Your task to perform on an android device: uninstall "Pluto TV - Live TV and Movies" Image 0: 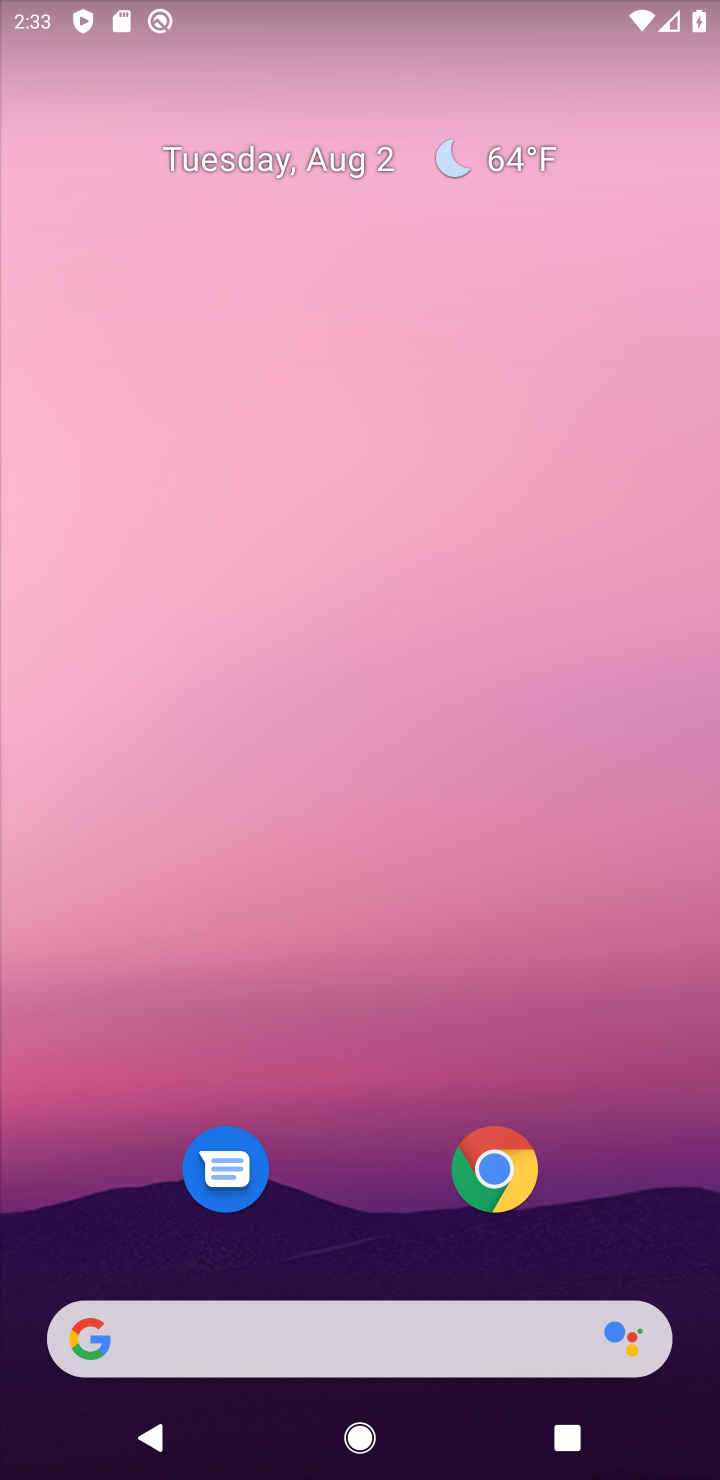
Step 0: drag from (605, 1138) to (458, 41)
Your task to perform on an android device: uninstall "Pluto TV - Live TV and Movies" Image 1: 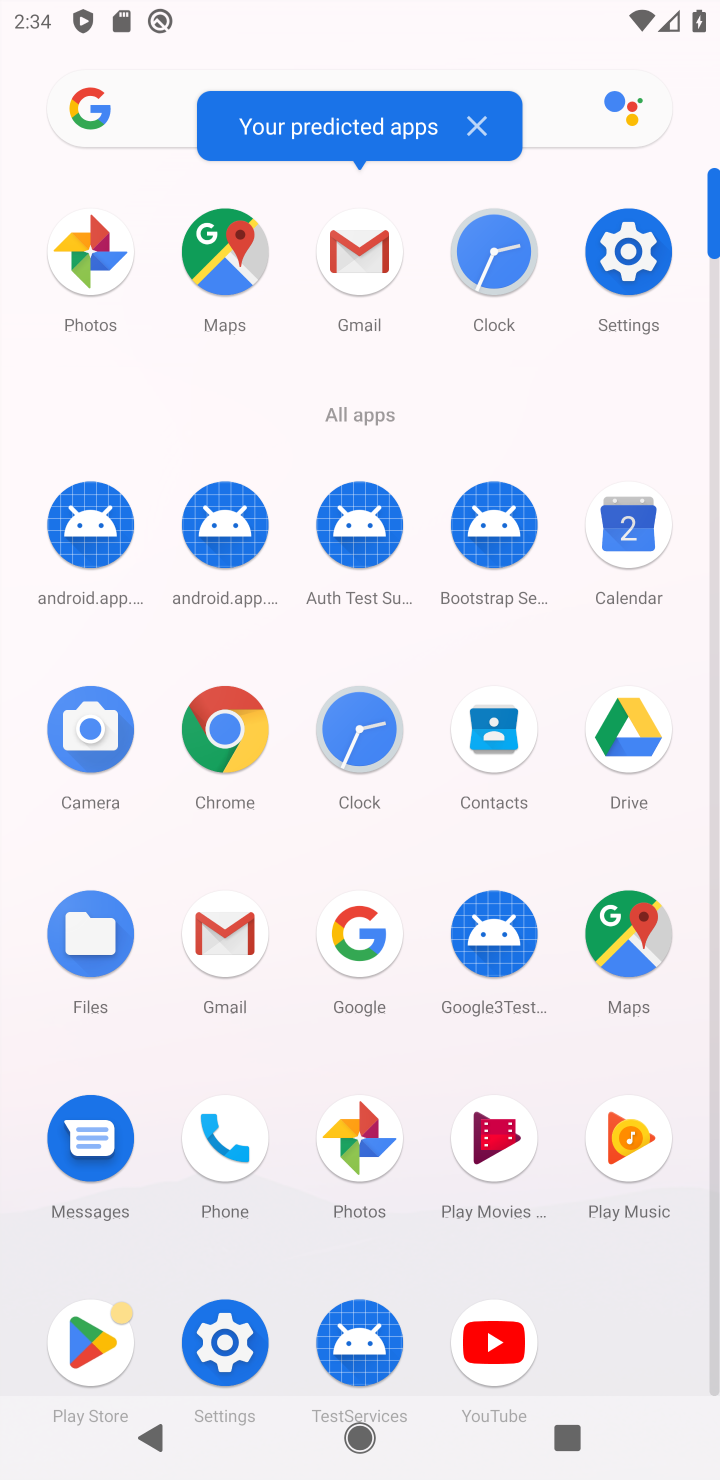
Step 1: click (80, 1318)
Your task to perform on an android device: uninstall "Pluto TV - Live TV and Movies" Image 2: 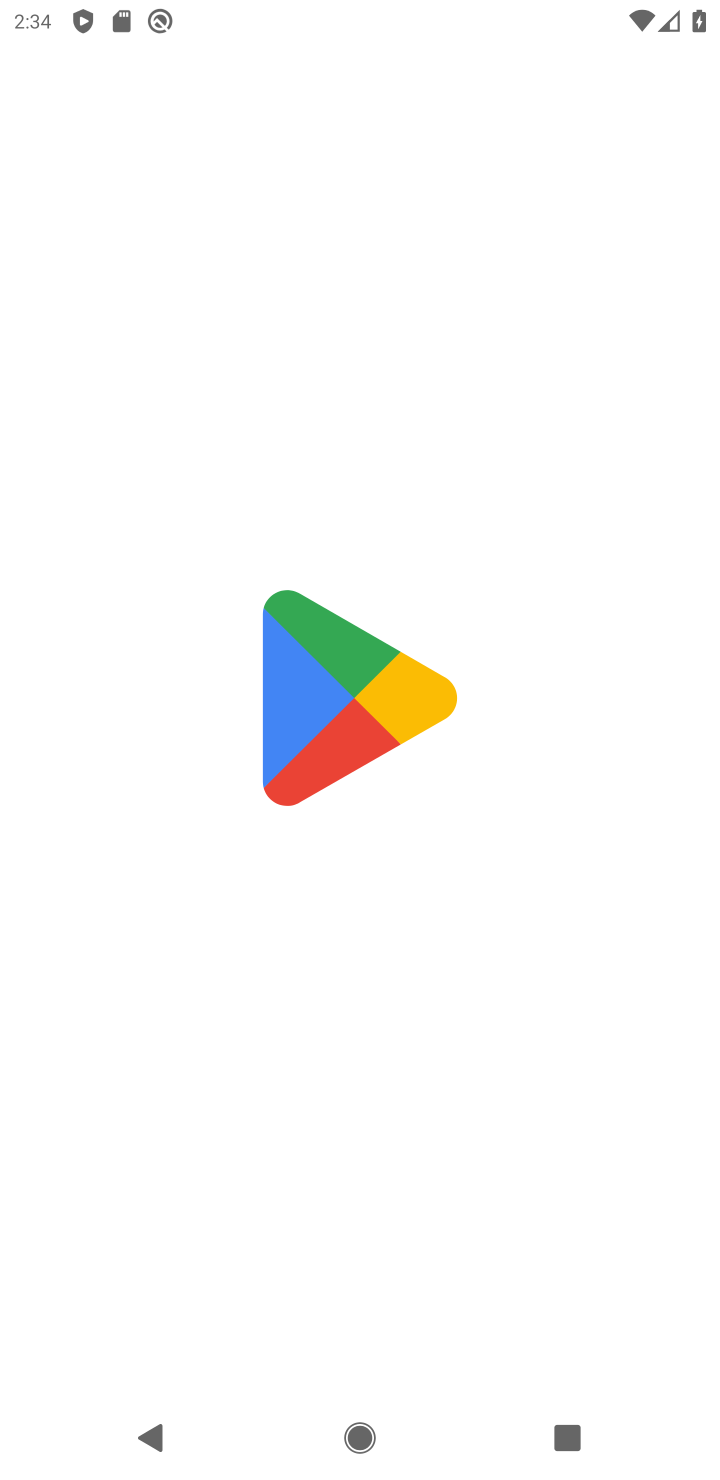
Step 2: drag from (553, 1094) to (404, 137)
Your task to perform on an android device: uninstall "Pluto TV - Live TV and Movies" Image 3: 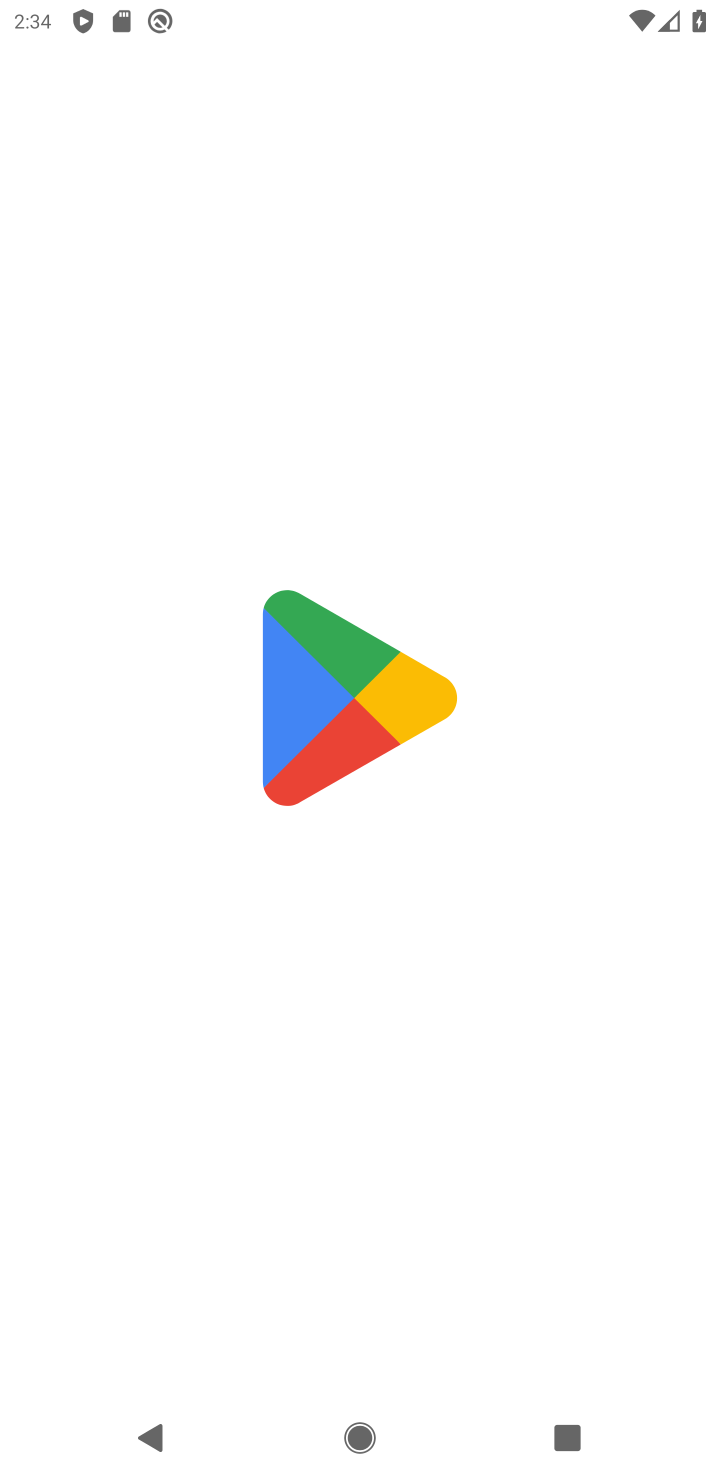
Step 3: press home button
Your task to perform on an android device: uninstall "Pluto TV - Live TV and Movies" Image 4: 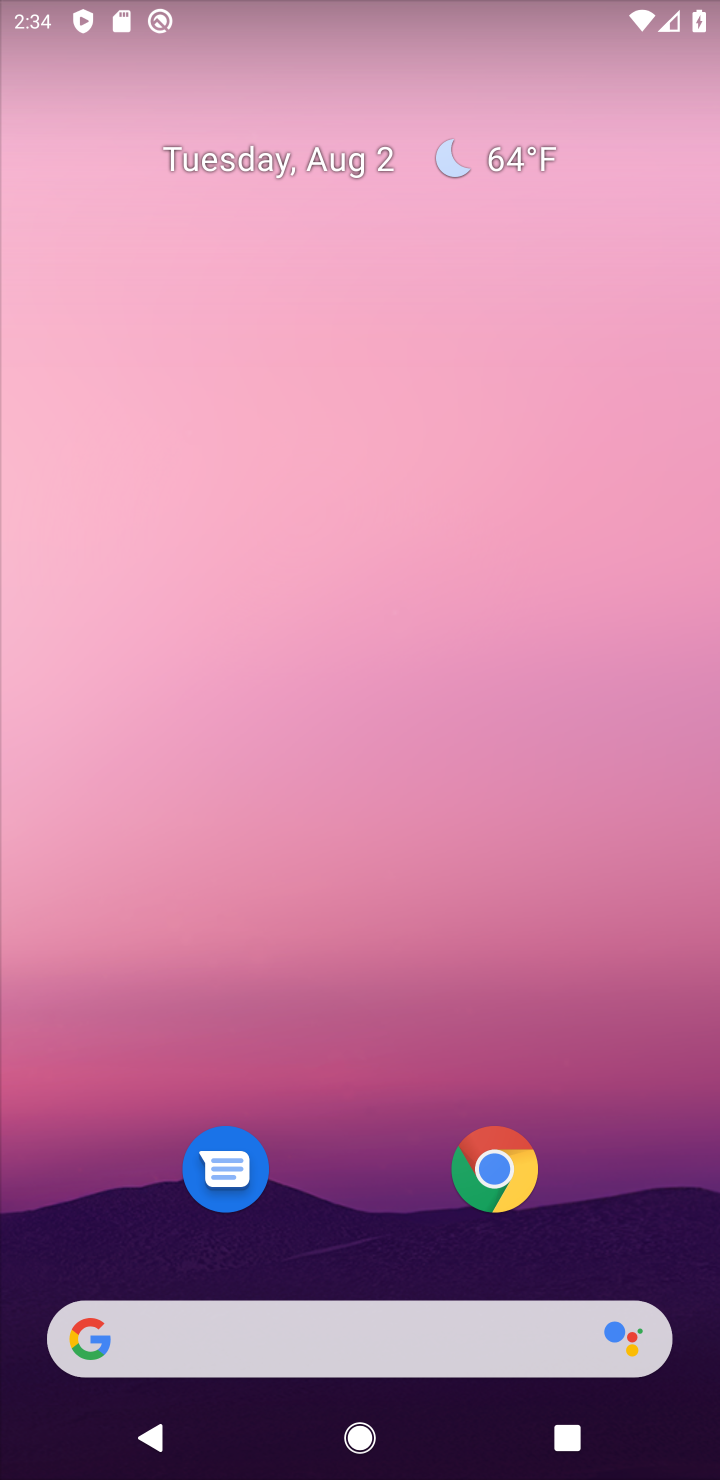
Step 4: drag from (375, 1214) to (284, 77)
Your task to perform on an android device: uninstall "Pluto TV - Live TV and Movies" Image 5: 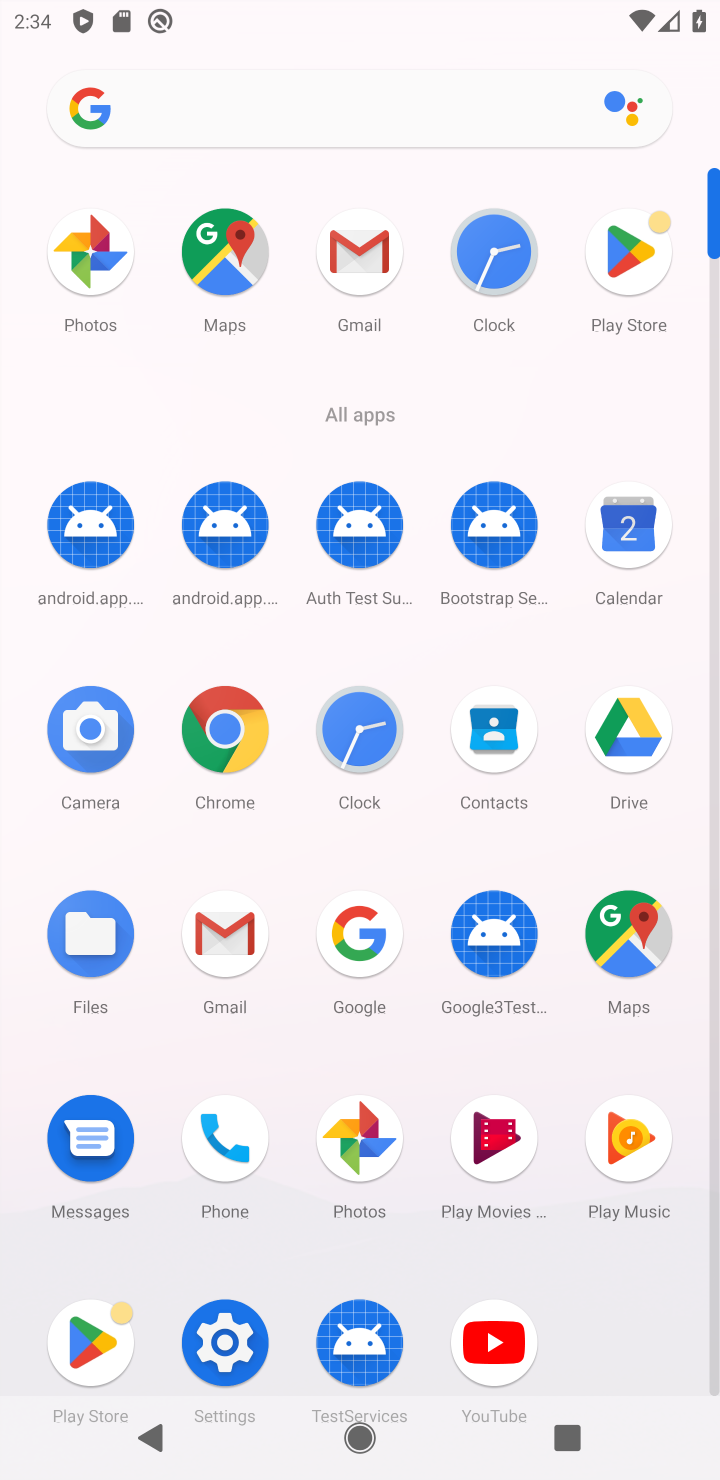
Step 5: click (627, 262)
Your task to perform on an android device: uninstall "Pluto TV - Live TV and Movies" Image 6: 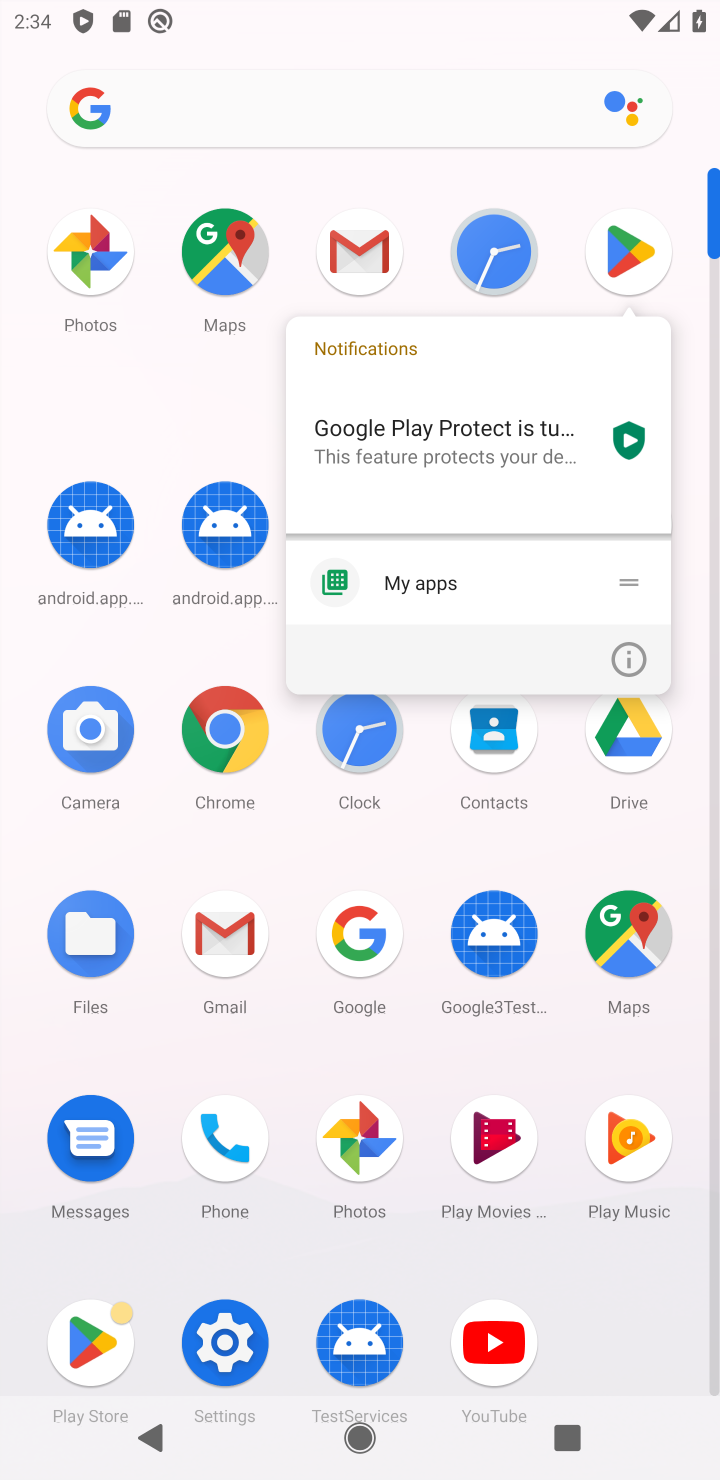
Step 6: click (629, 651)
Your task to perform on an android device: uninstall "Pluto TV - Live TV and Movies" Image 7: 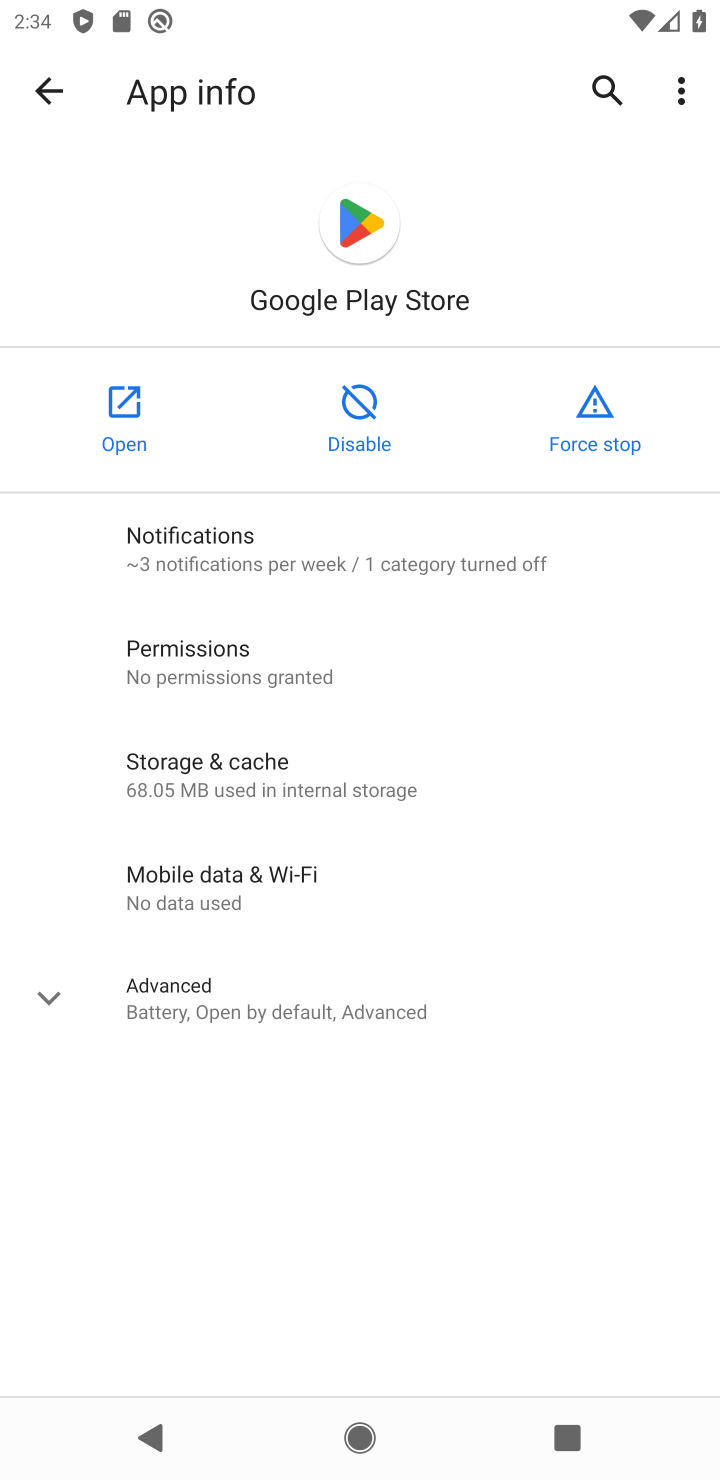
Step 7: click (268, 778)
Your task to perform on an android device: uninstall "Pluto TV - Live TV and Movies" Image 8: 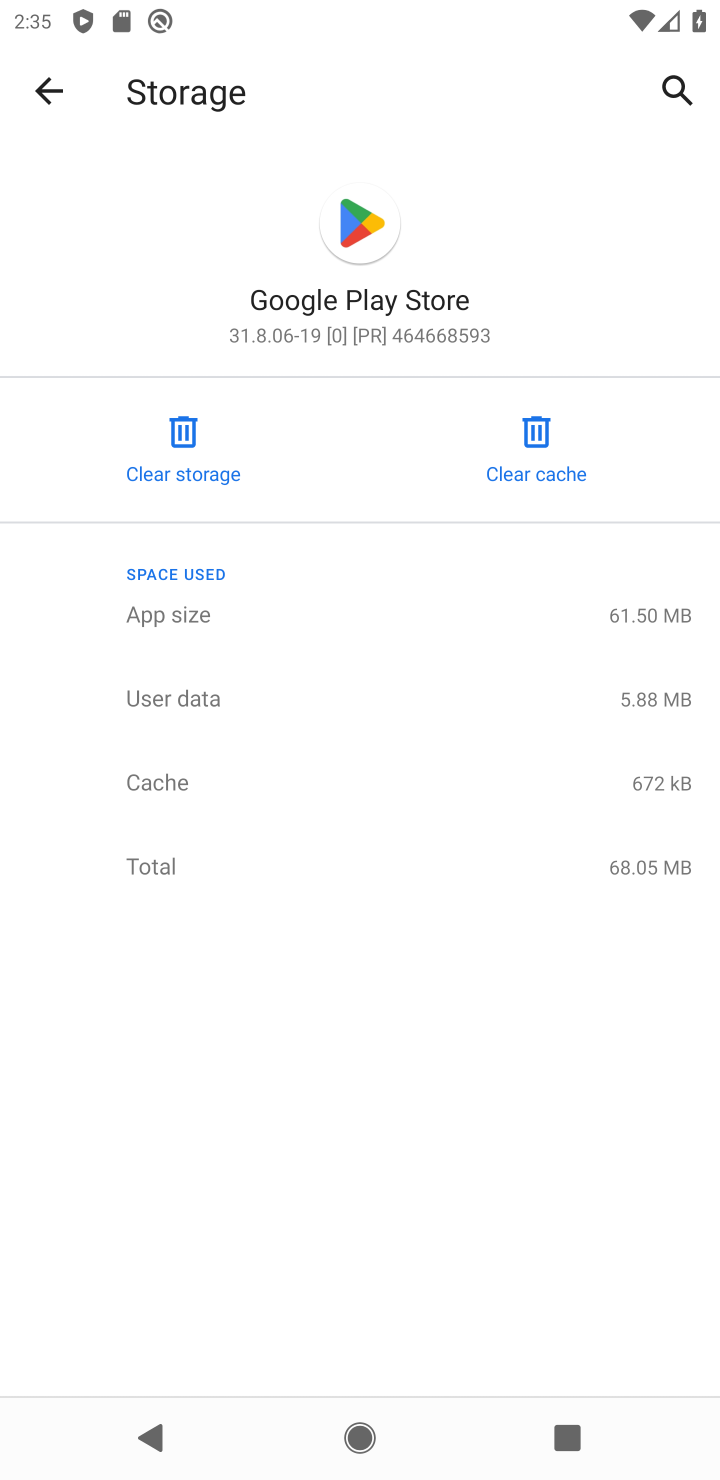
Step 8: click (535, 424)
Your task to perform on an android device: uninstall "Pluto TV - Live TV and Movies" Image 9: 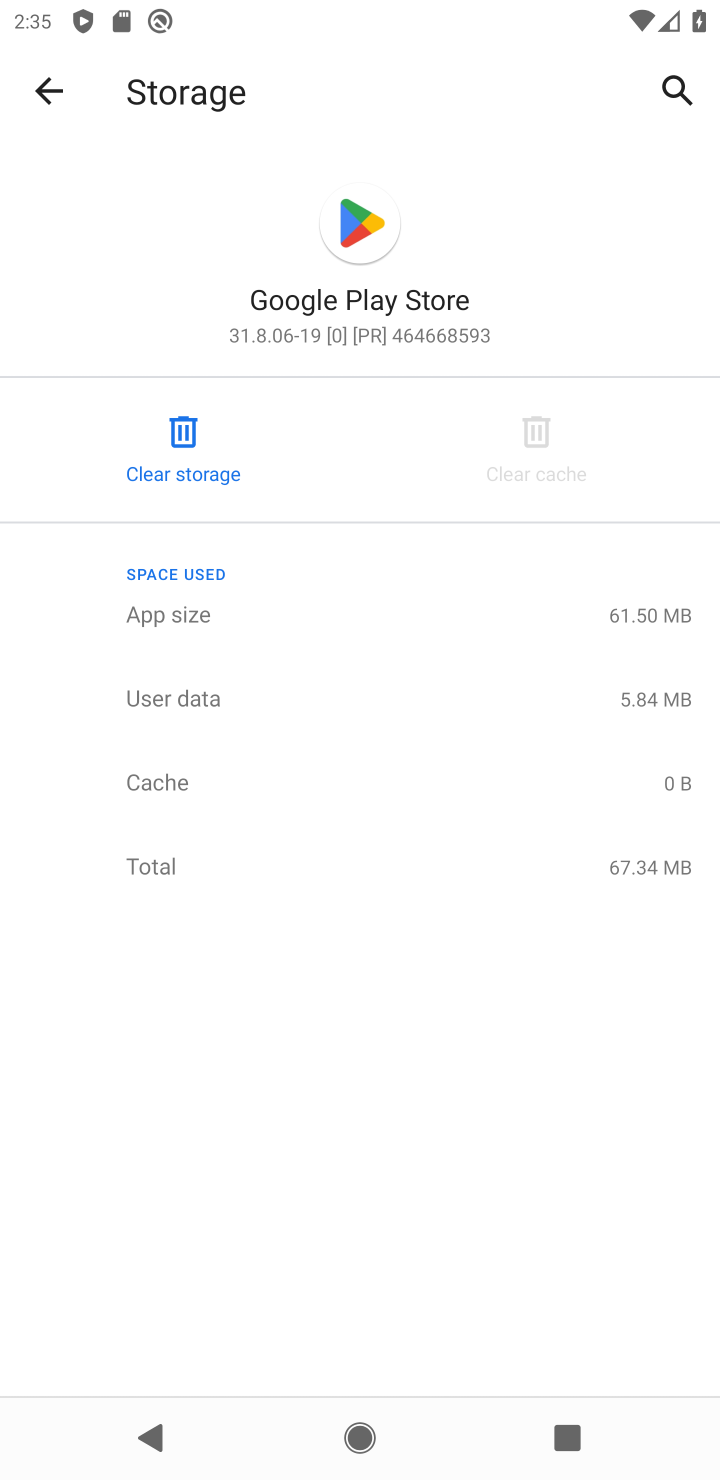
Step 9: click (58, 86)
Your task to perform on an android device: uninstall "Pluto TV - Live TV and Movies" Image 10: 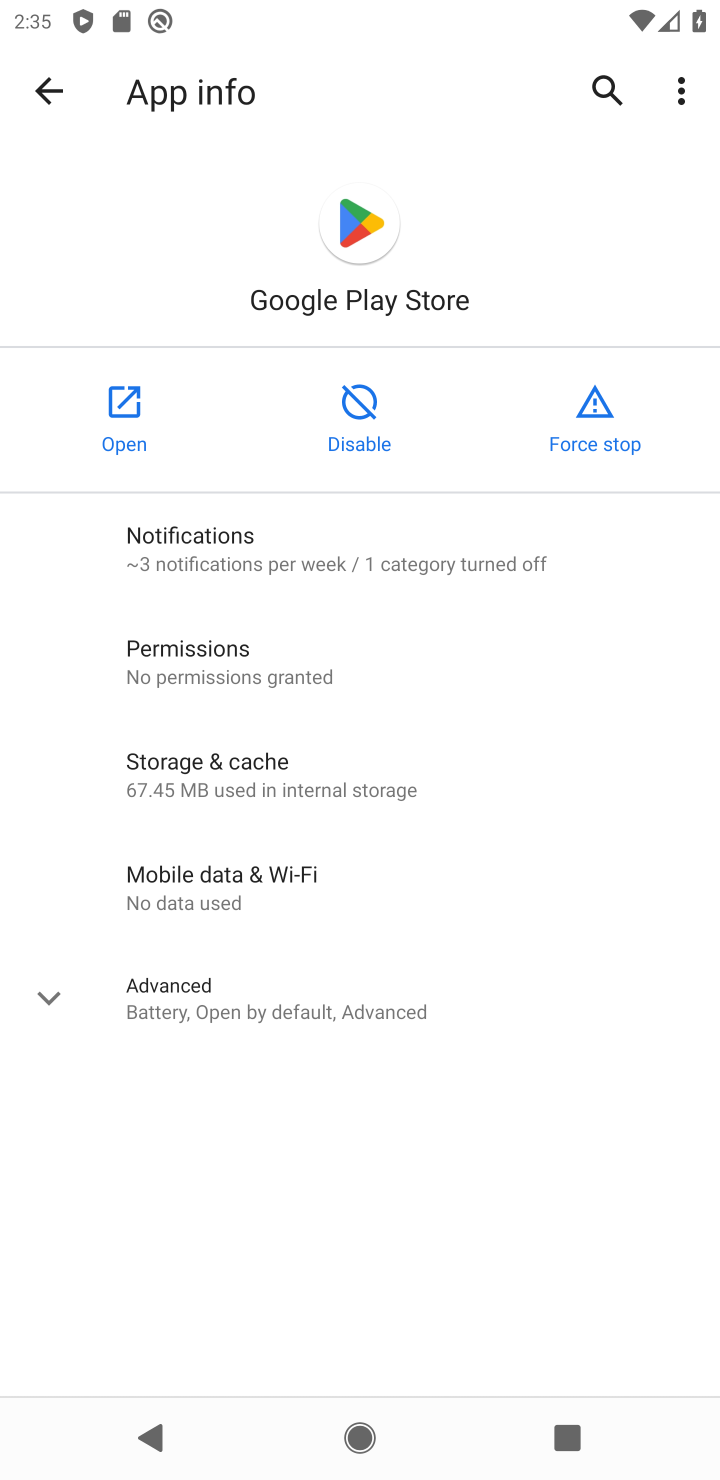
Step 10: click (58, 86)
Your task to perform on an android device: uninstall "Pluto TV - Live TV and Movies" Image 11: 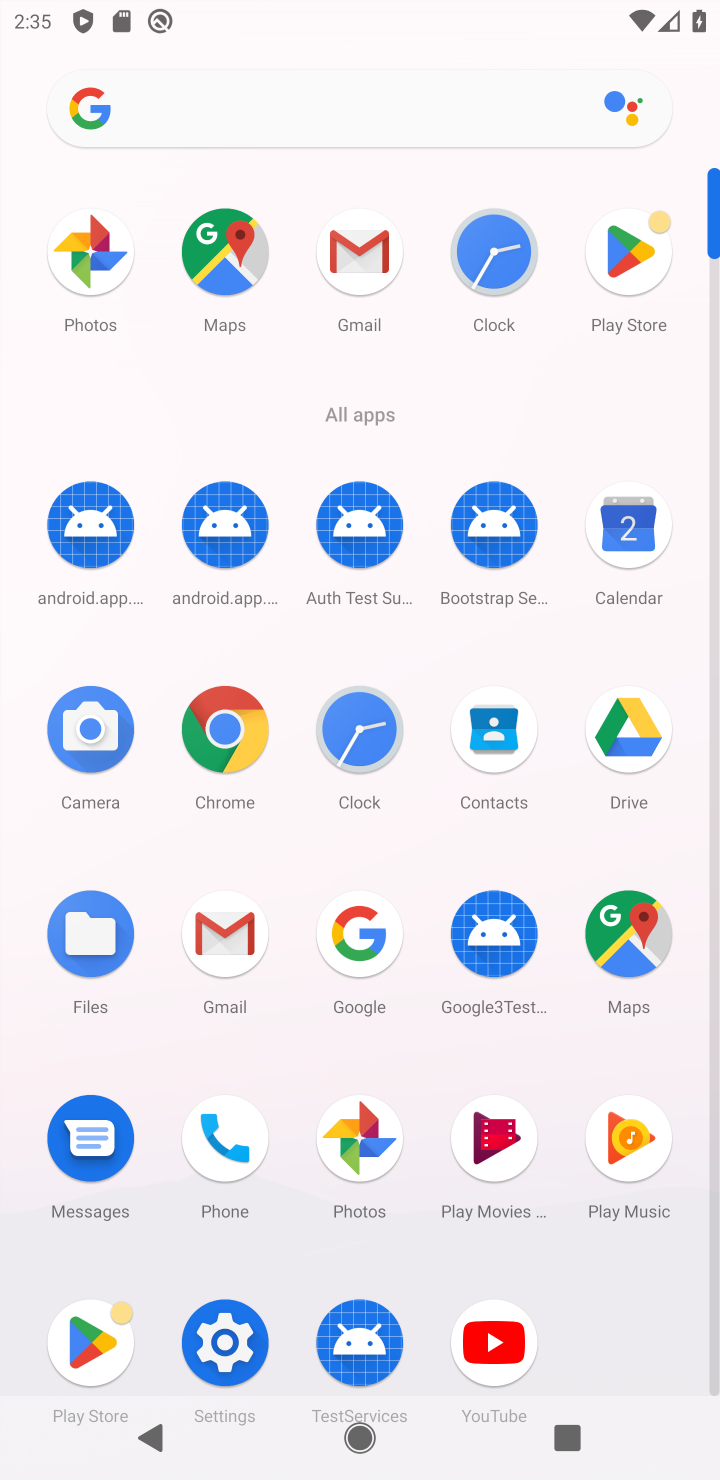
Step 11: click (632, 231)
Your task to perform on an android device: uninstall "Pluto TV - Live TV and Movies" Image 12: 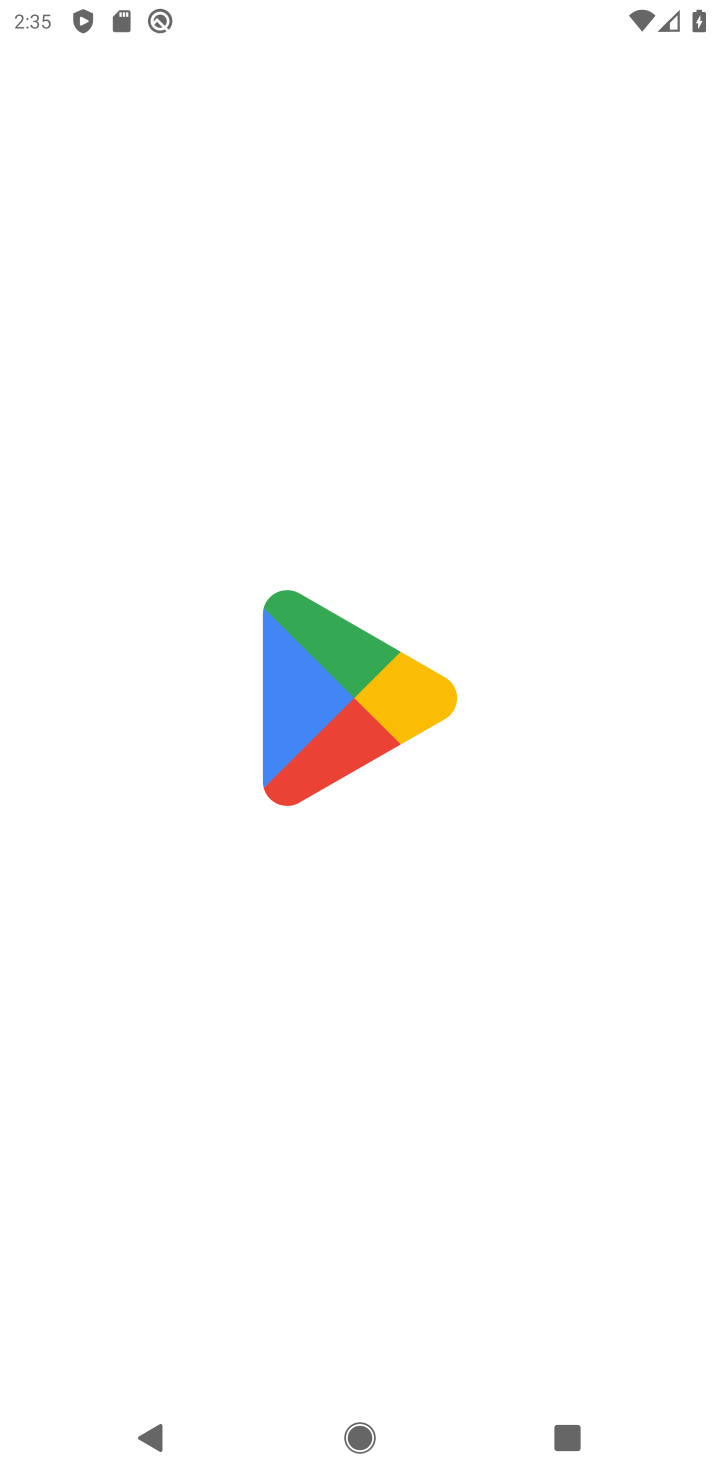
Step 12: click (632, 231)
Your task to perform on an android device: uninstall "Pluto TV - Live TV and Movies" Image 13: 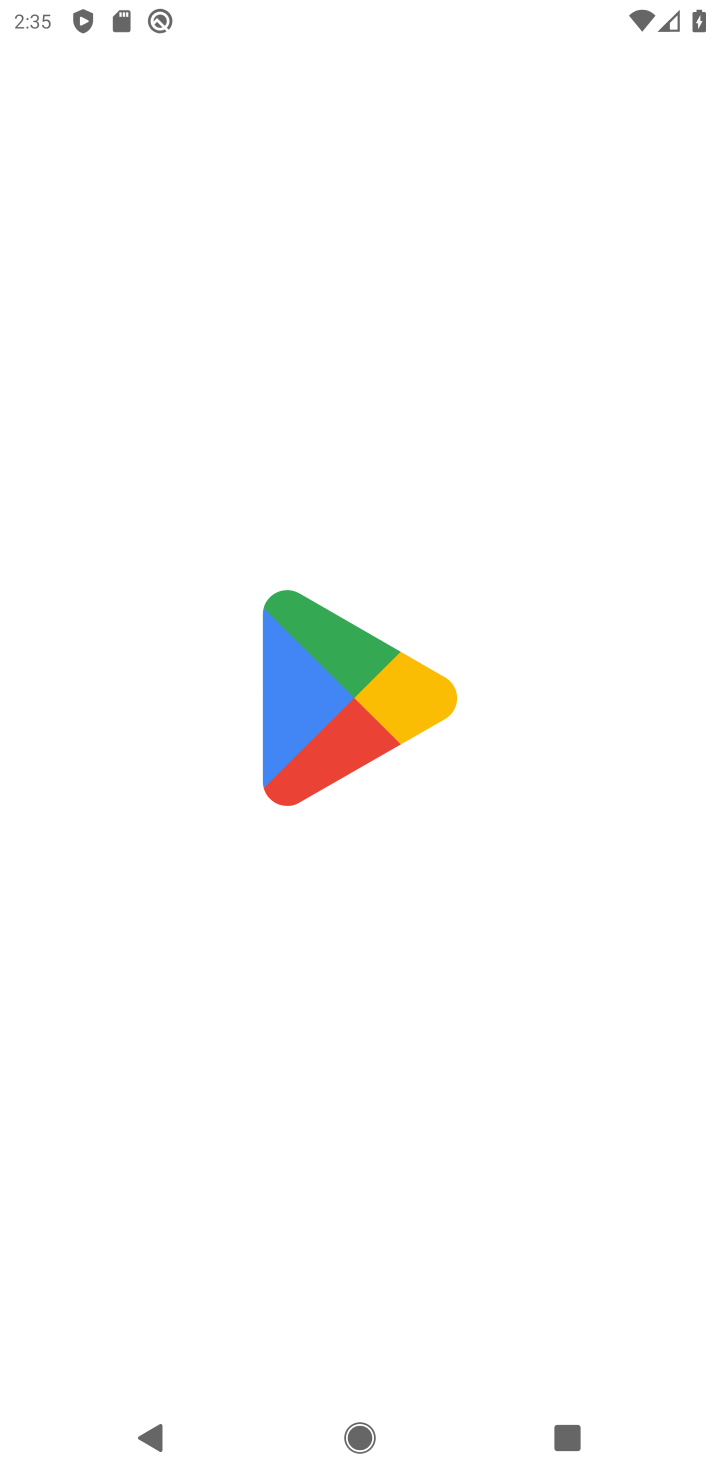
Step 13: click (632, 231)
Your task to perform on an android device: uninstall "Pluto TV - Live TV and Movies" Image 14: 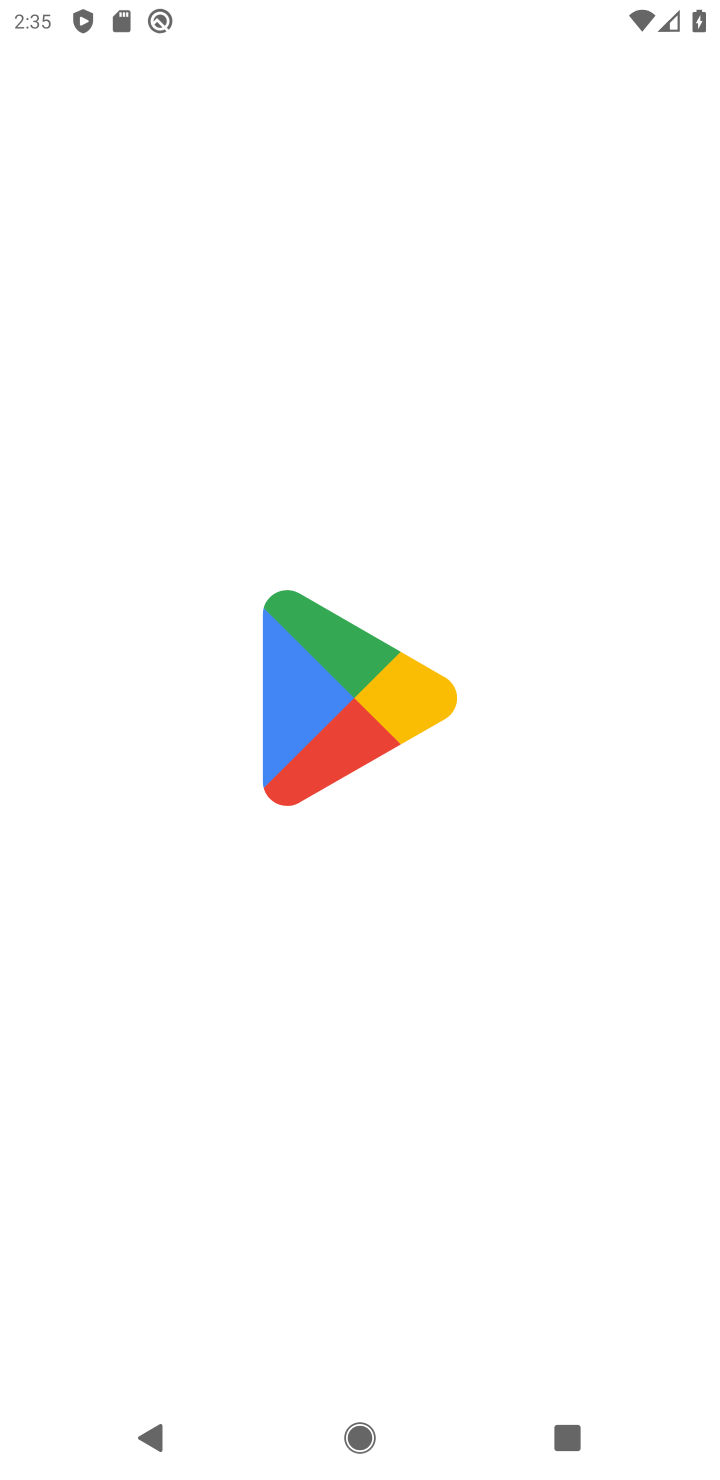
Step 14: press back button
Your task to perform on an android device: uninstall "Pluto TV - Live TV and Movies" Image 15: 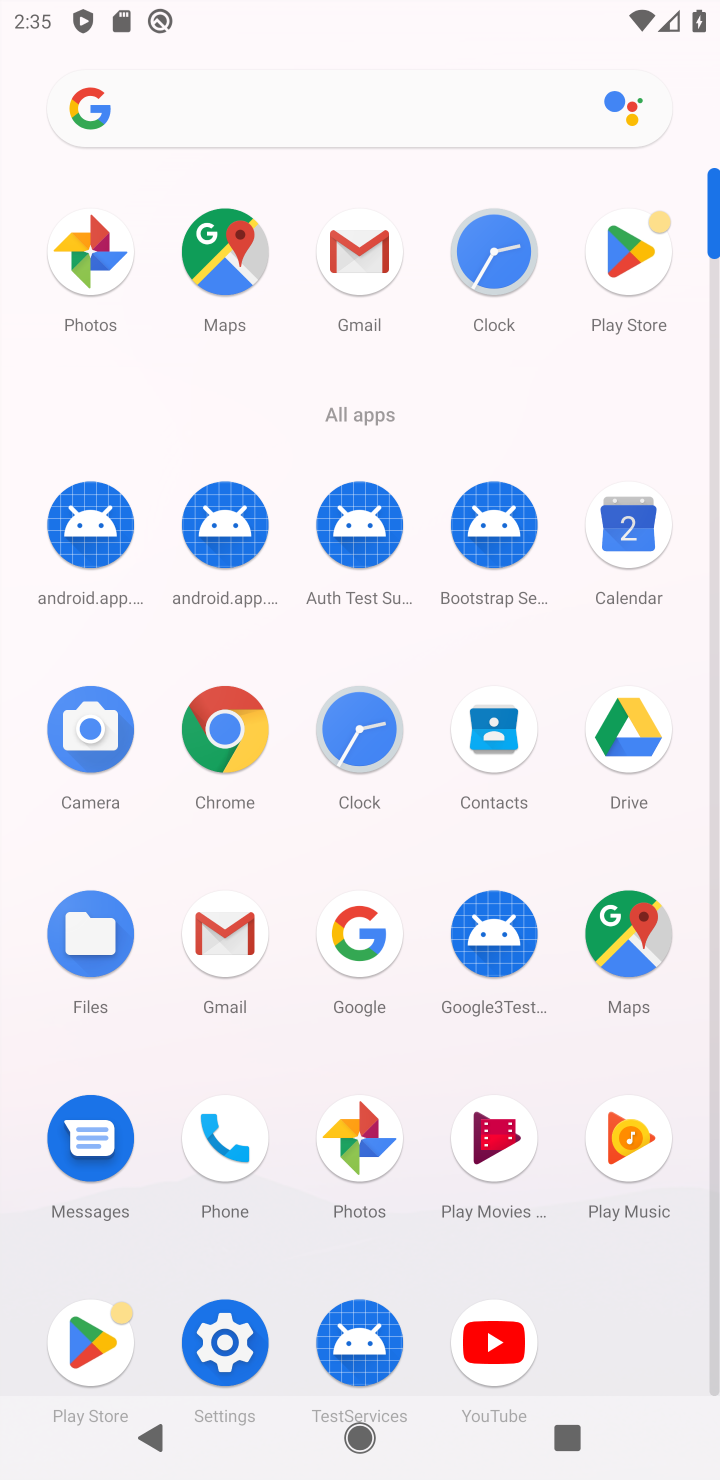
Step 15: click (638, 255)
Your task to perform on an android device: uninstall "Pluto TV - Live TV and Movies" Image 16: 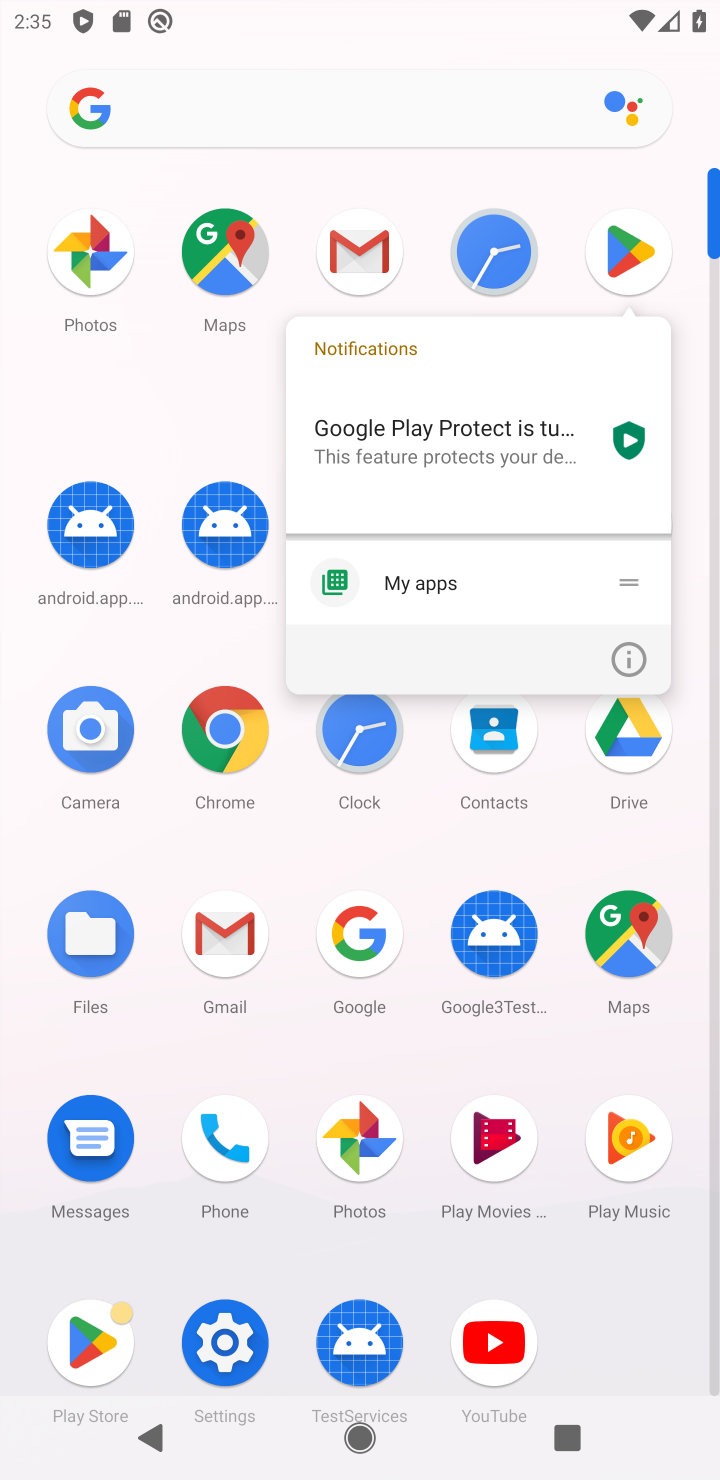
Step 16: click (425, 591)
Your task to perform on an android device: uninstall "Pluto TV - Live TV and Movies" Image 17: 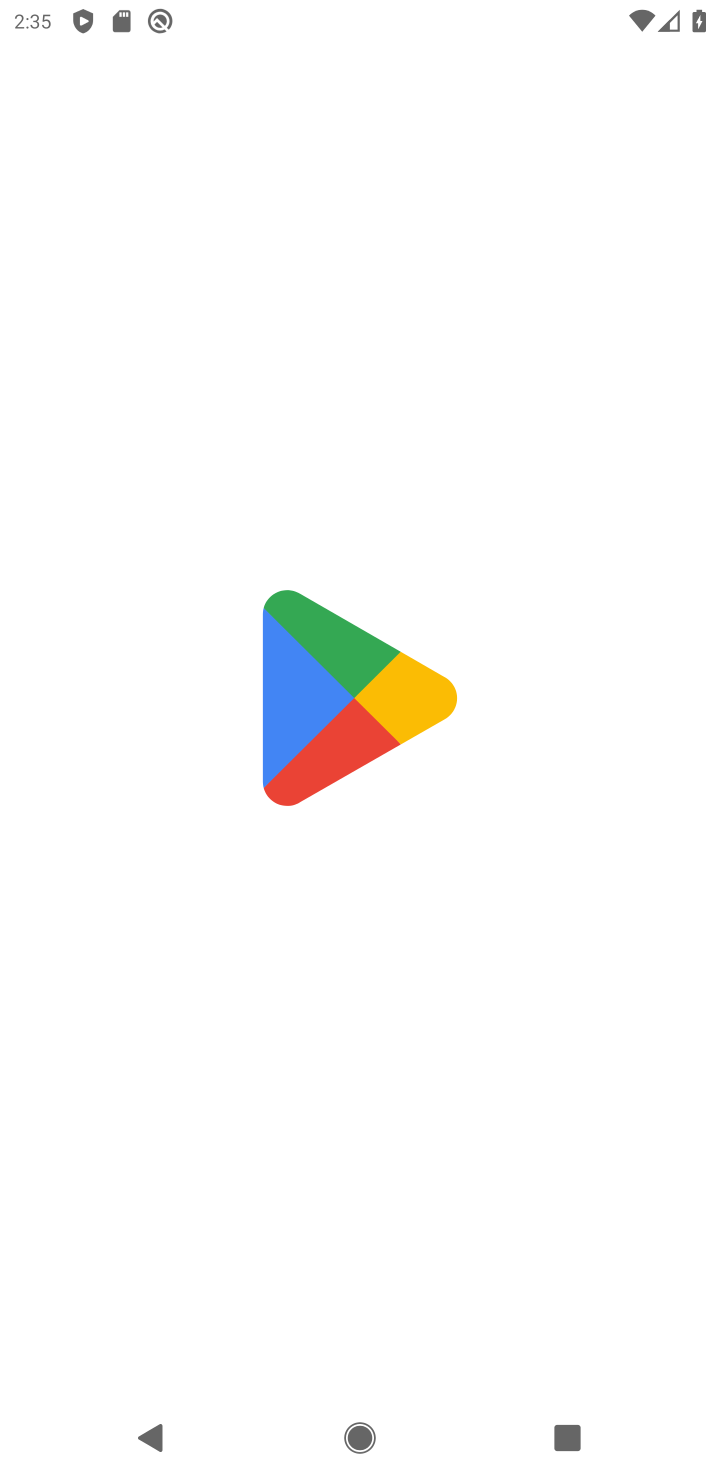
Step 17: task complete